Your task to perform on an android device: Go to internet settings Image 0: 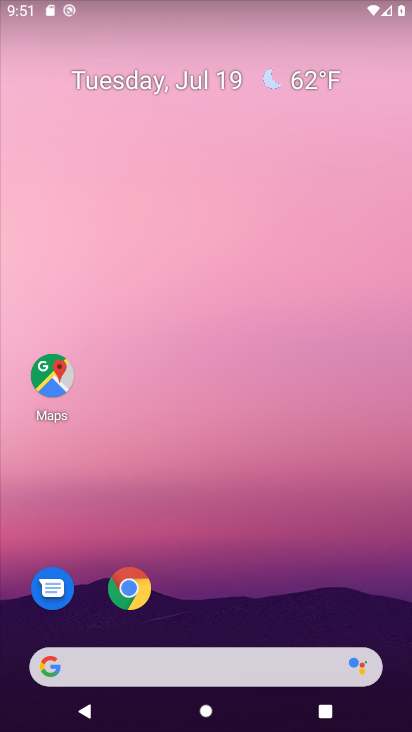
Step 0: drag from (191, 543) to (250, 111)
Your task to perform on an android device: Go to internet settings Image 1: 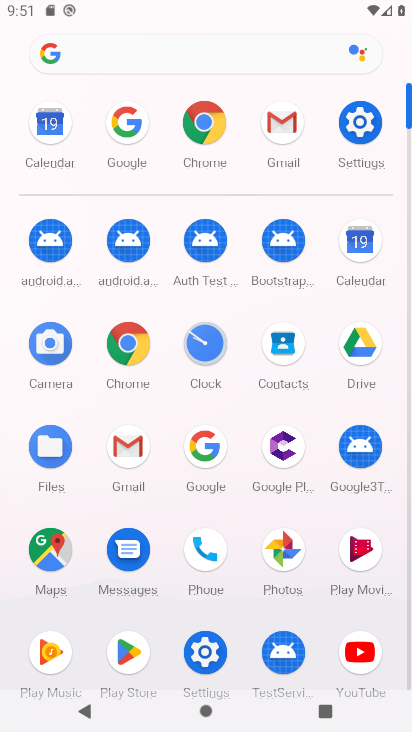
Step 1: click (363, 131)
Your task to perform on an android device: Go to internet settings Image 2: 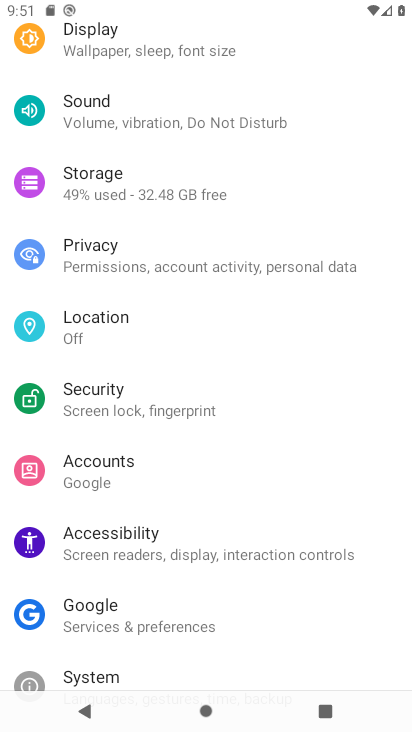
Step 2: drag from (194, 152) to (187, 336)
Your task to perform on an android device: Go to internet settings Image 3: 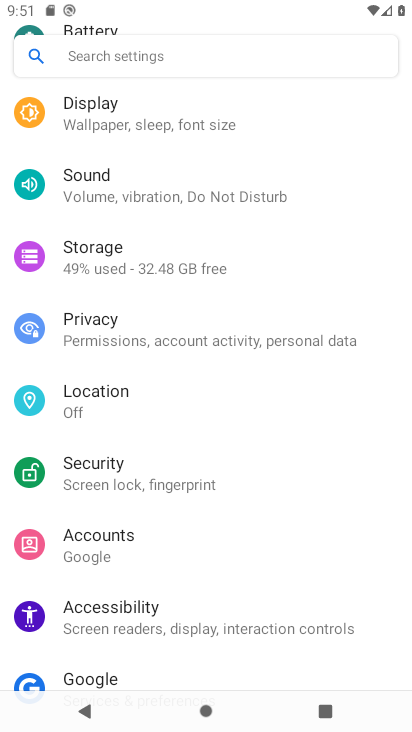
Step 3: drag from (170, 240) to (165, 355)
Your task to perform on an android device: Go to internet settings Image 4: 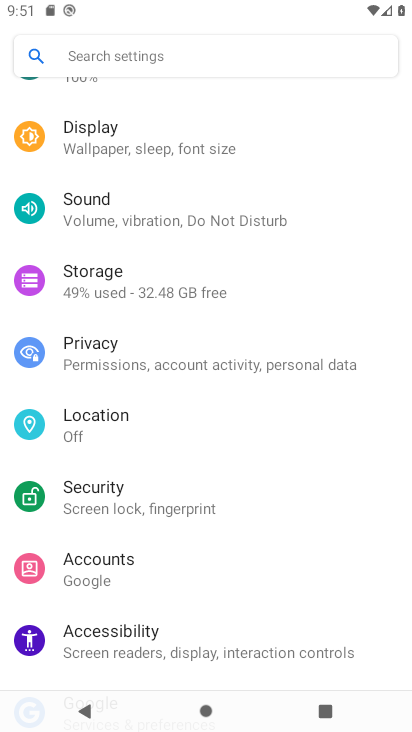
Step 4: drag from (167, 157) to (156, 333)
Your task to perform on an android device: Go to internet settings Image 5: 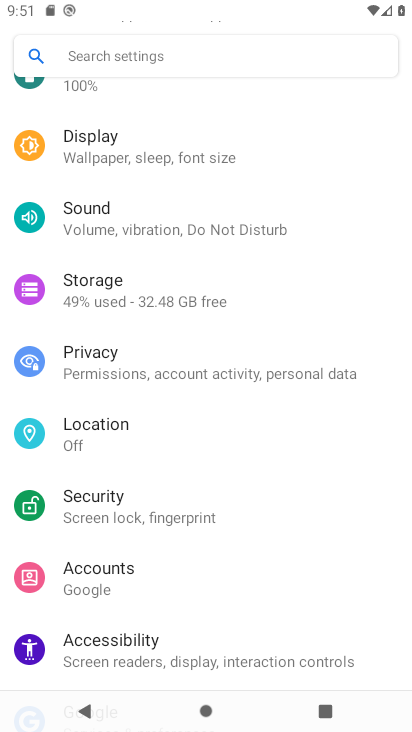
Step 5: drag from (147, 142) to (132, 431)
Your task to perform on an android device: Go to internet settings Image 6: 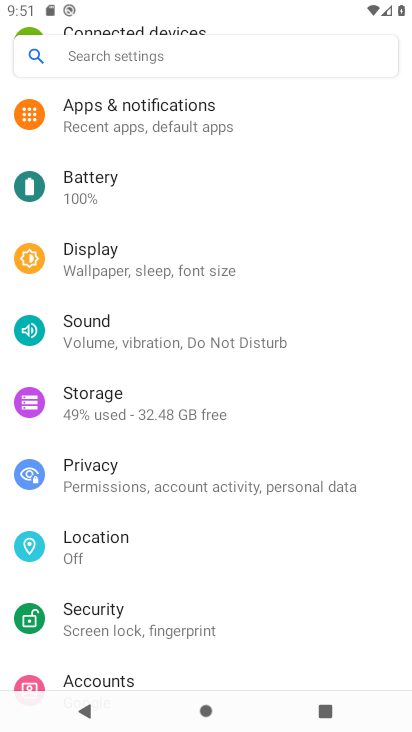
Step 6: drag from (145, 231) to (145, 357)
Your task to perform on an android device: Go to internet settings Image 7: 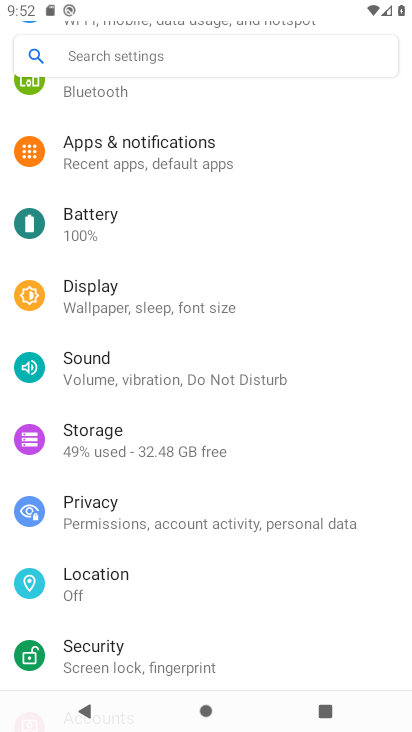
Step 7: drag from (145, 256) to (145, 371)
Your task to perform on an android device: Go to internet settings Image 8: 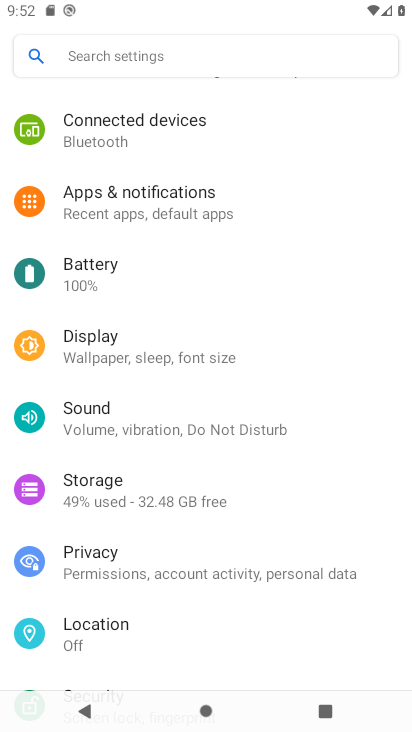
Step 8: drag from (146, 139) to (140, 410)
Your task to perform on an android device: Go to internet settings Image 9: 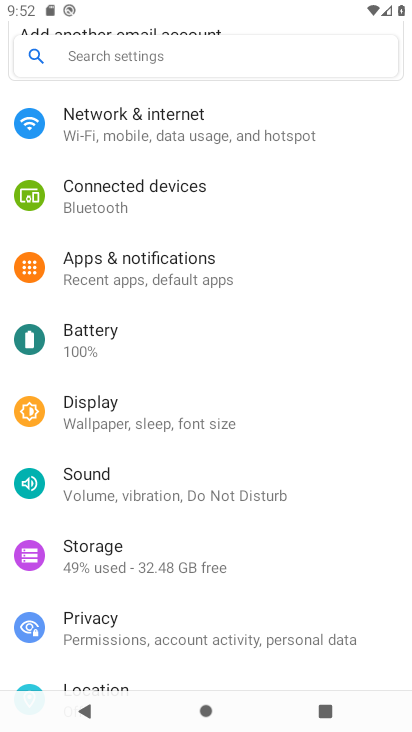
Step 9: click (136, 110)
Your task to perform on an android device: Go to internet settings Image 10: 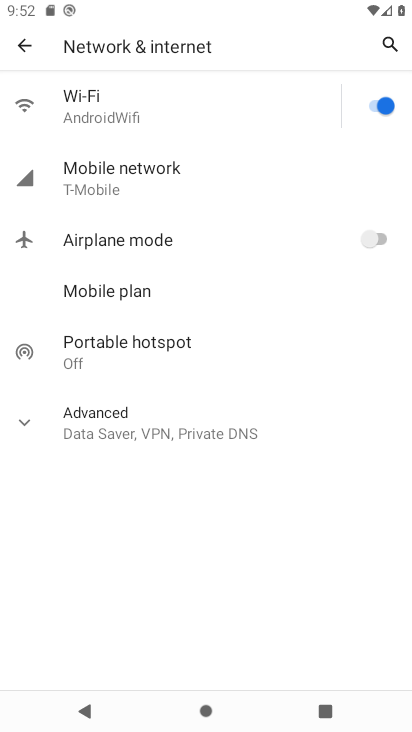
Step 10: task complete